Your task to perform on an android device: turn off improve location accuracy Image 0: 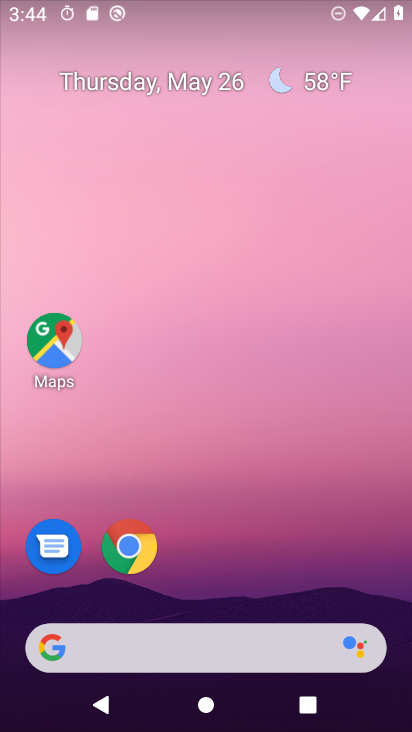
Step 0: drag from (221, 591) to (224, 58)
Your task to perform on an android device: turn off improve location accuracy Image 1: 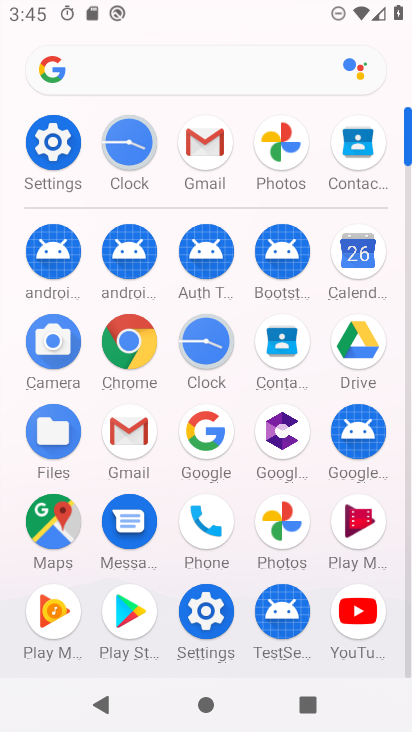
Step 1: click (50, 138)
Your task to perform on an android device: turn off improve location accuracy Image 2: 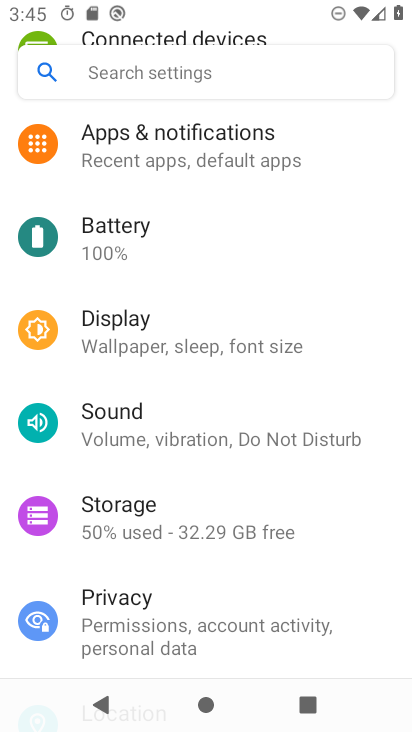
Step 2: drag from (195, 604) to (253, 136)
Your task to perform on an android device: turn off improve location accuracy Image 3: 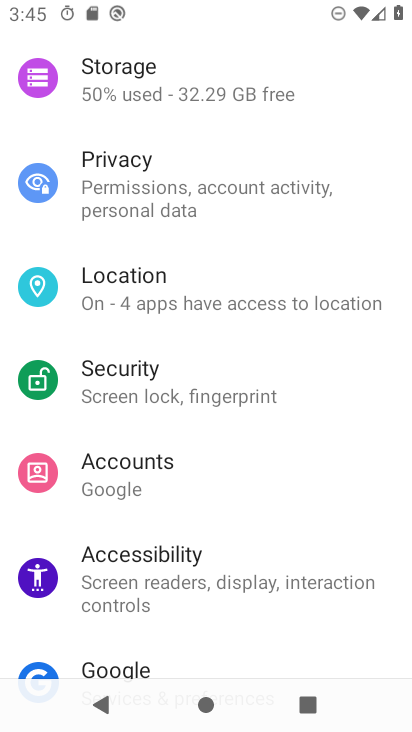
Step 3: click (193, 286)
Your task to perform on an android device: turn off improve location accuracy Image 4: 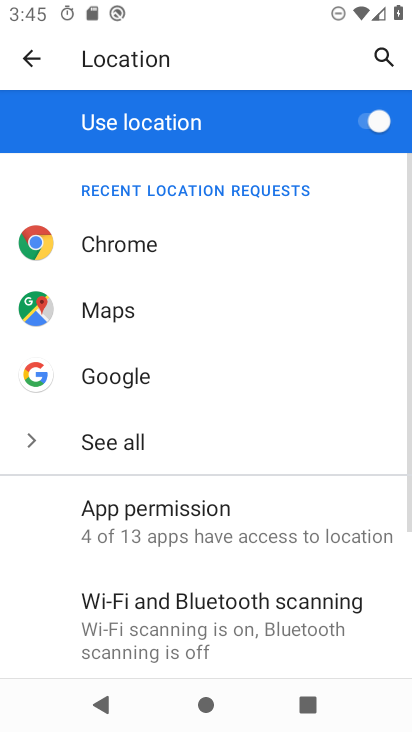
Step 4: drag from (226, 636) to (258, 110)
Your task to perform on an android device: turn off improve location accuracy Image 5: 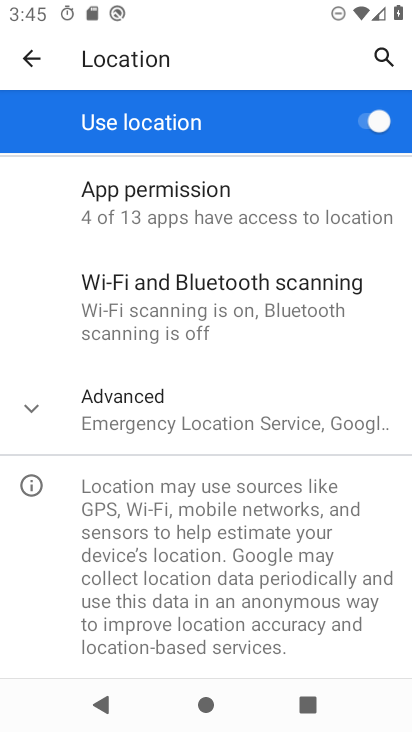
Step 5: click (29, 404)
Your task to perform on an android device: turn off improve location accuracy Image 6: 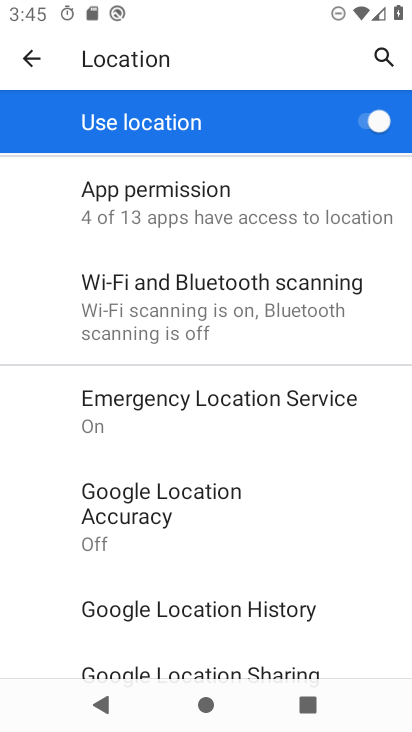
Step 6: click (185, 508)
Your task to perform on an android device: turn off improve location accuracy Image 7: 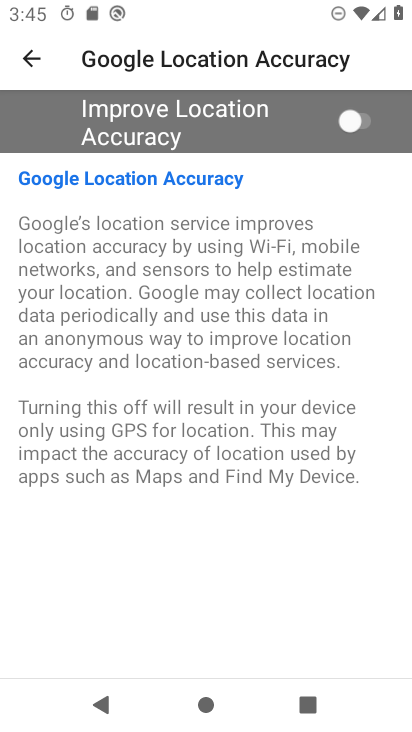
Step 7: task complete